Your task to perform on an android device: uninstall "DoorDash - Food Delivery" Image 0: 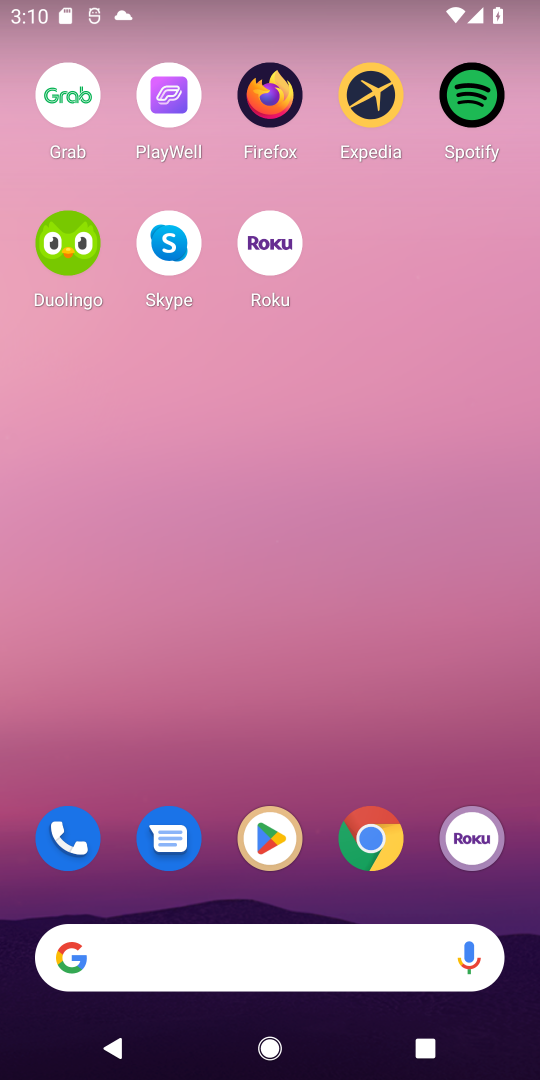
Step 0: click (248, 827)
Your task to perform on an android device: uninstall "DoorDash - Food Delivery" Image 1: 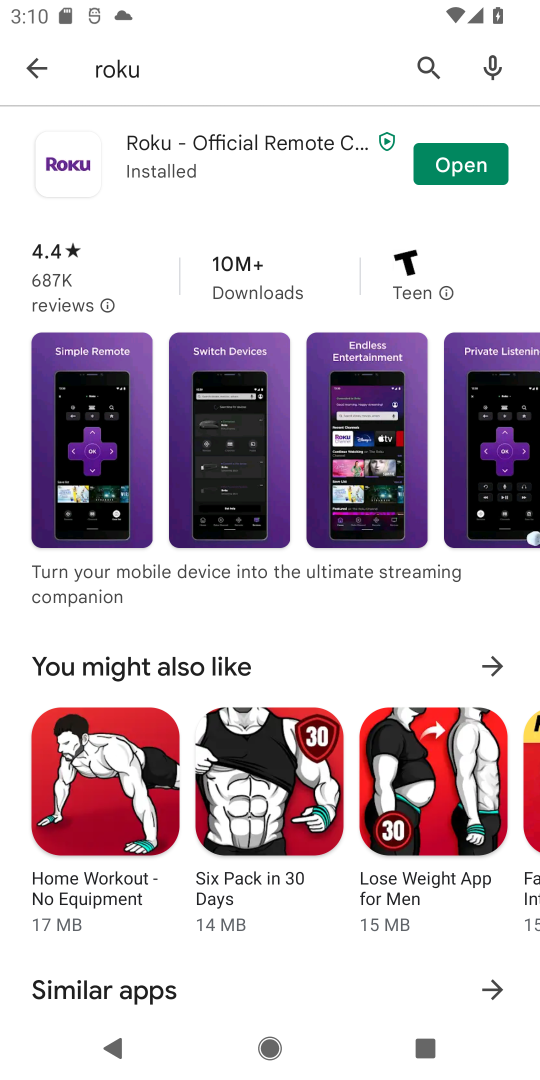
Step 1: click (35, 76)
Your task to perform on an android device: uninstall "DoorDash - Food Delivery" Image 2: 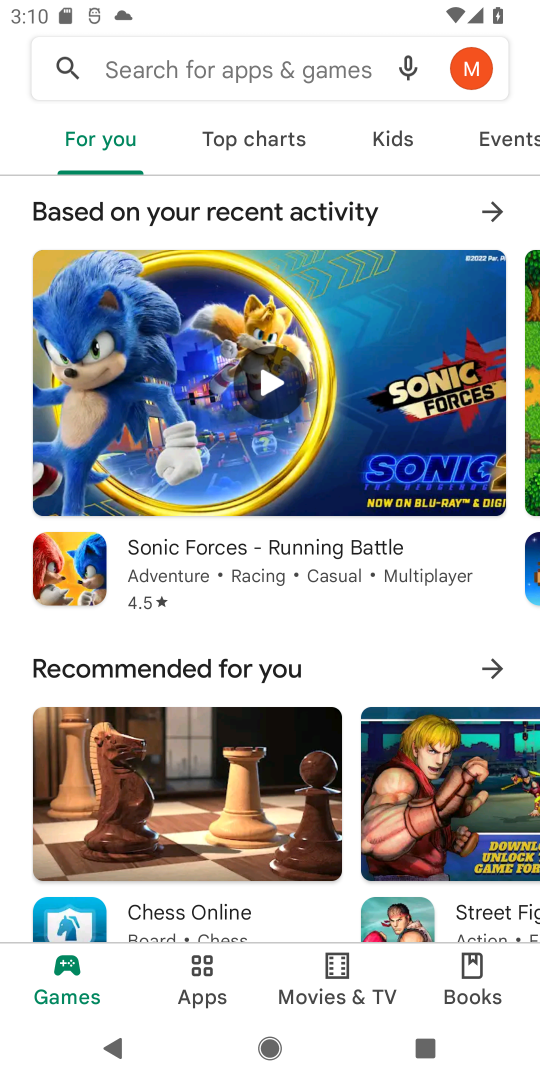
Step 2: click (134, 58)
Your task to perform on an android device: uninstall "DoorDash - Food Delivery" Image 3: 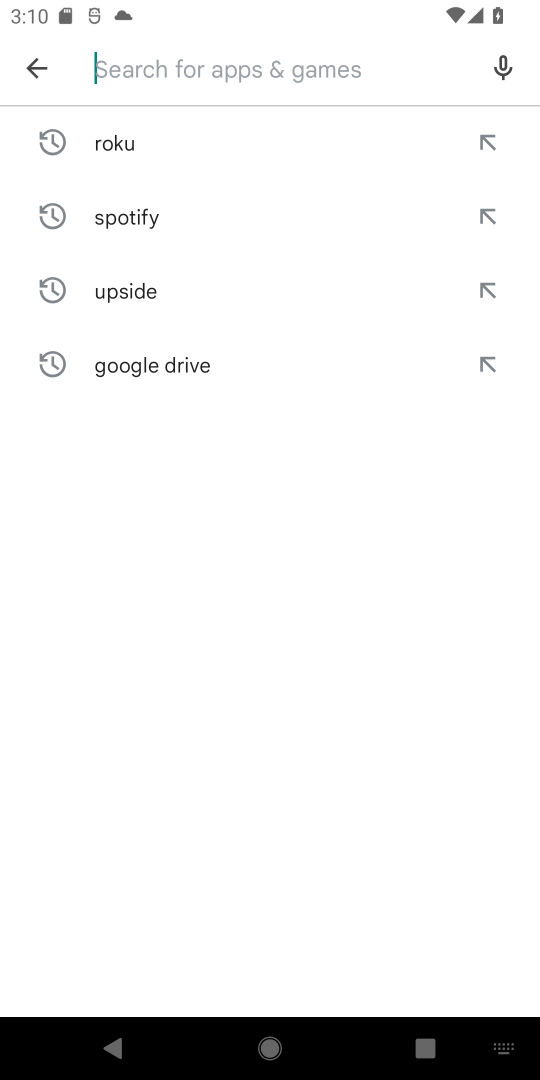
Step 3: type "DoorDash"
Your task to perform on an android device: uninstall "DoorDash - Food Delivery" Image 4: 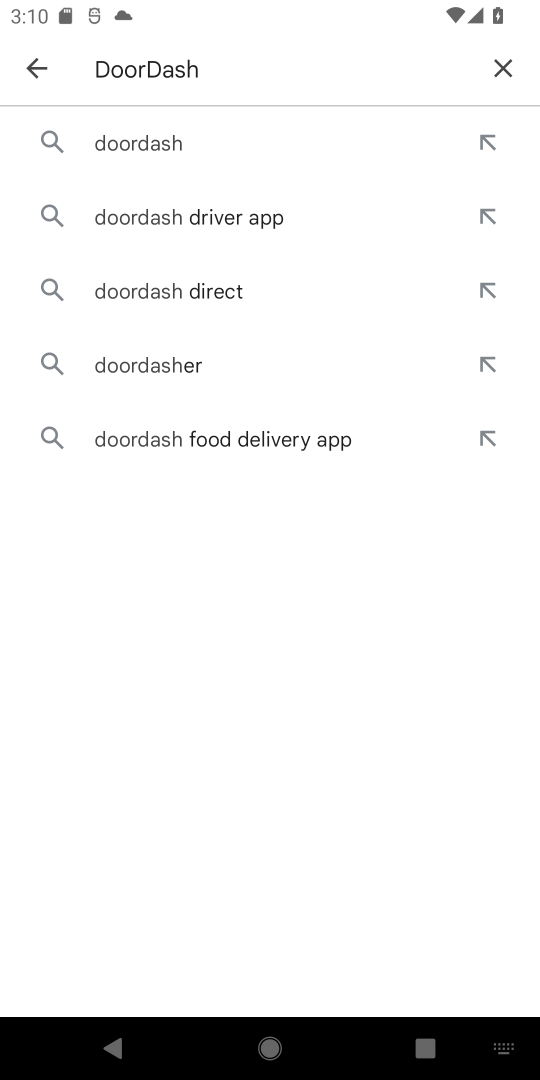
Step 4: click (157, 133)
Your task to perform on an android device: uninstall "DoorDash - Food Delivery" Image 5: 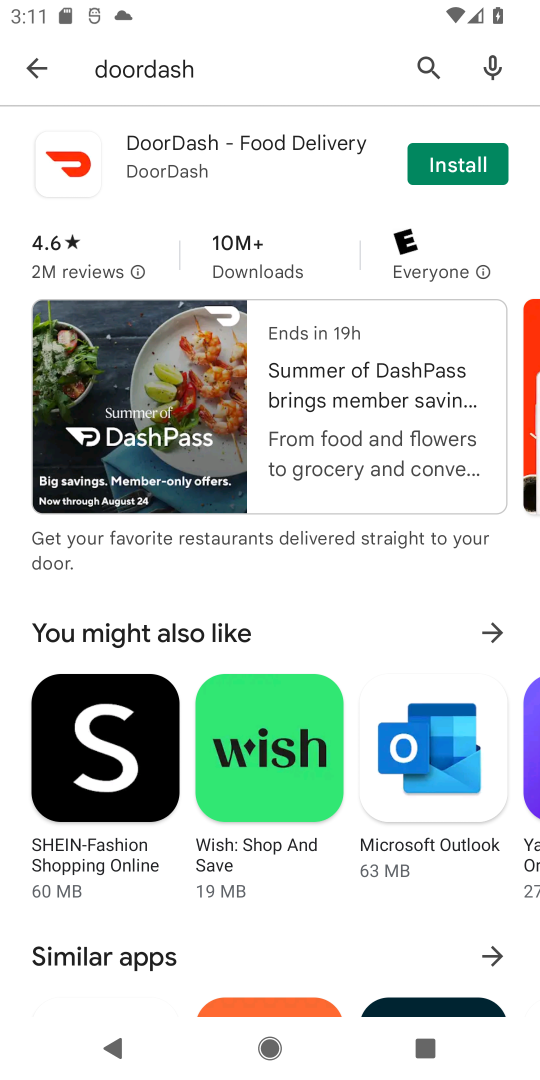
Step 5: task complete